Your task to perform on an android device: Open battery settings Image 0: 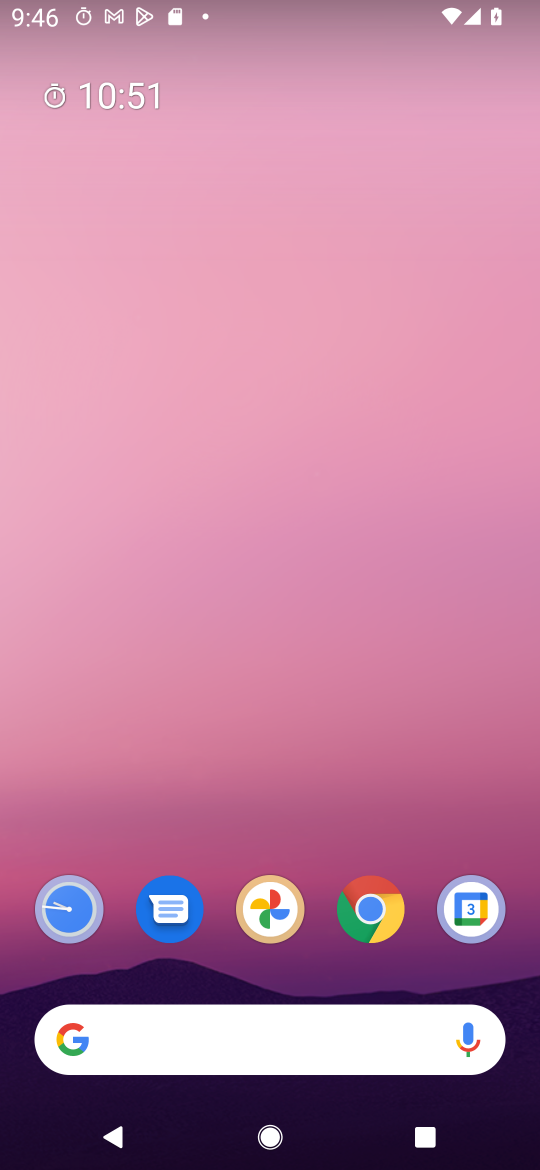
Step 0: press home button
Your task to perform on an android device: Open battery settings Image 1: 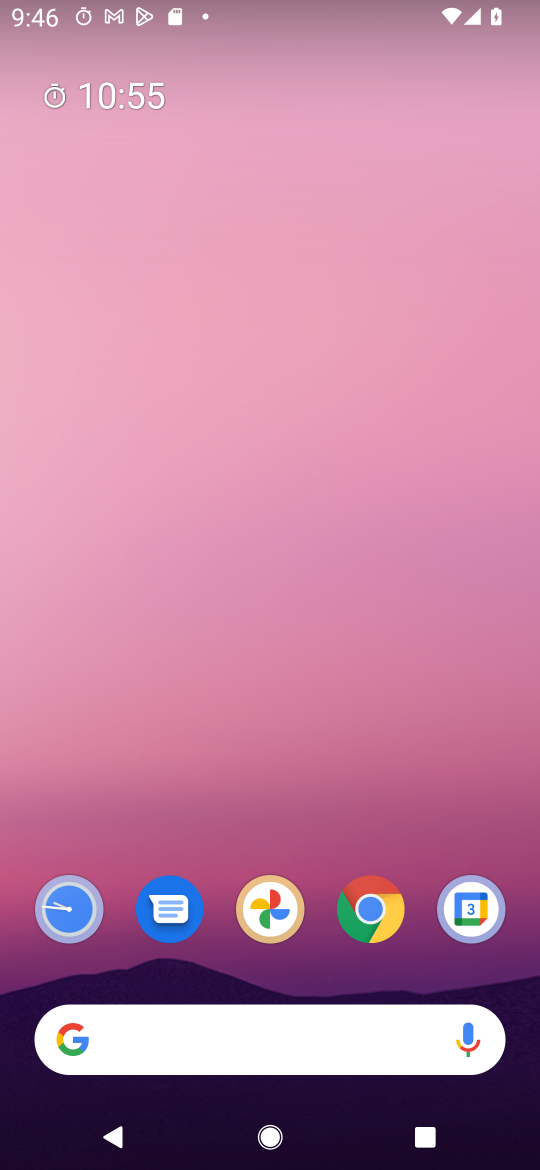
Step 1: drag from (434, 818) to (394, 218)
Your task to perform on an android device: Open battery settings Image 2: 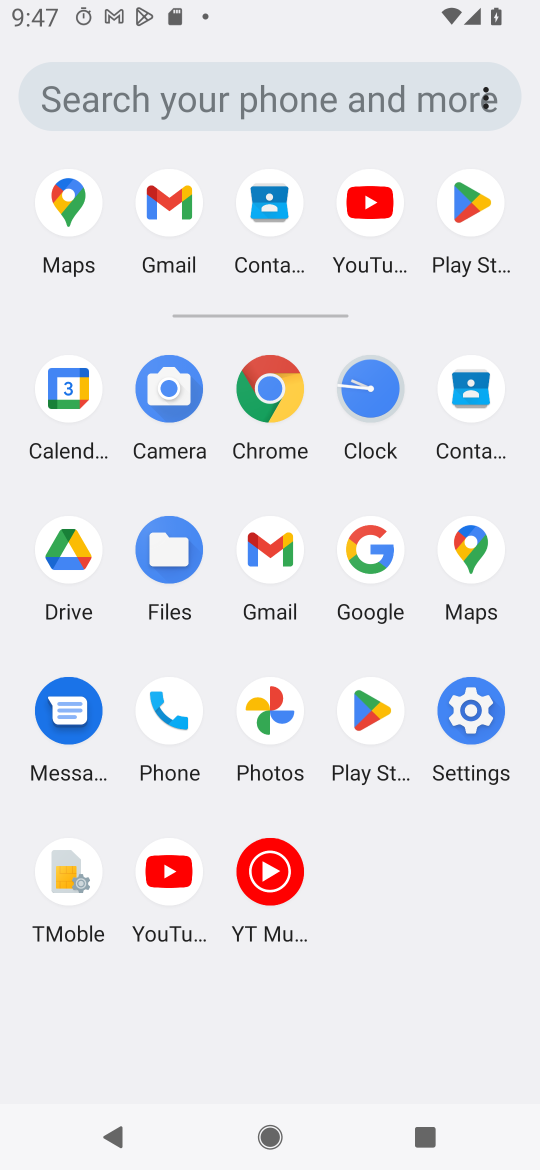
Step 2: click (474, 711)
Your task to perform on an android device: Open battery settings Image 3: 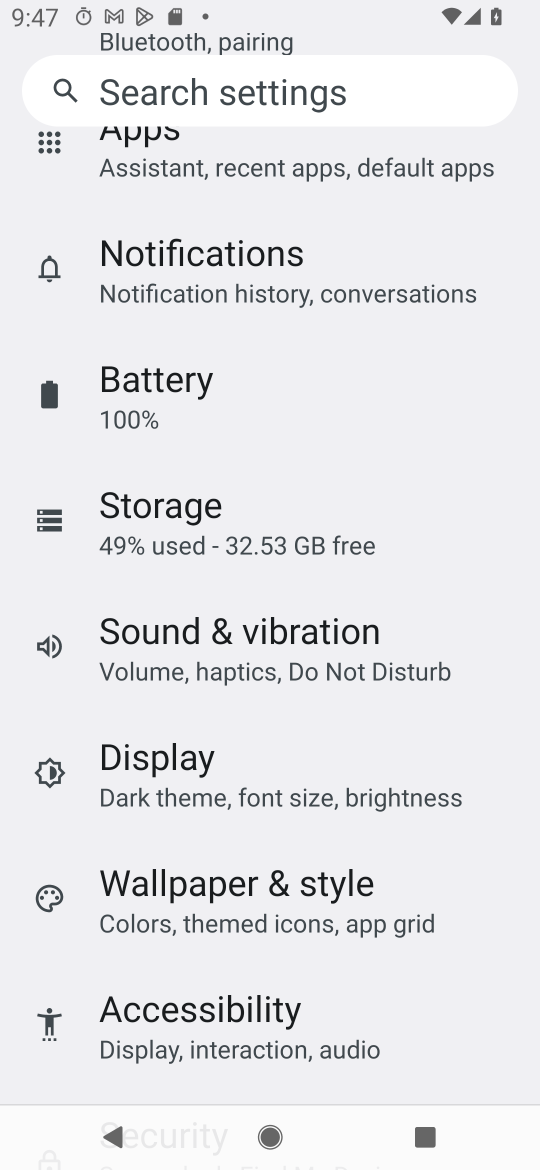
Step 3: drag from (480, 890) to (486, 686)
Your task to perform on an android device: Open battery settings Image 4: 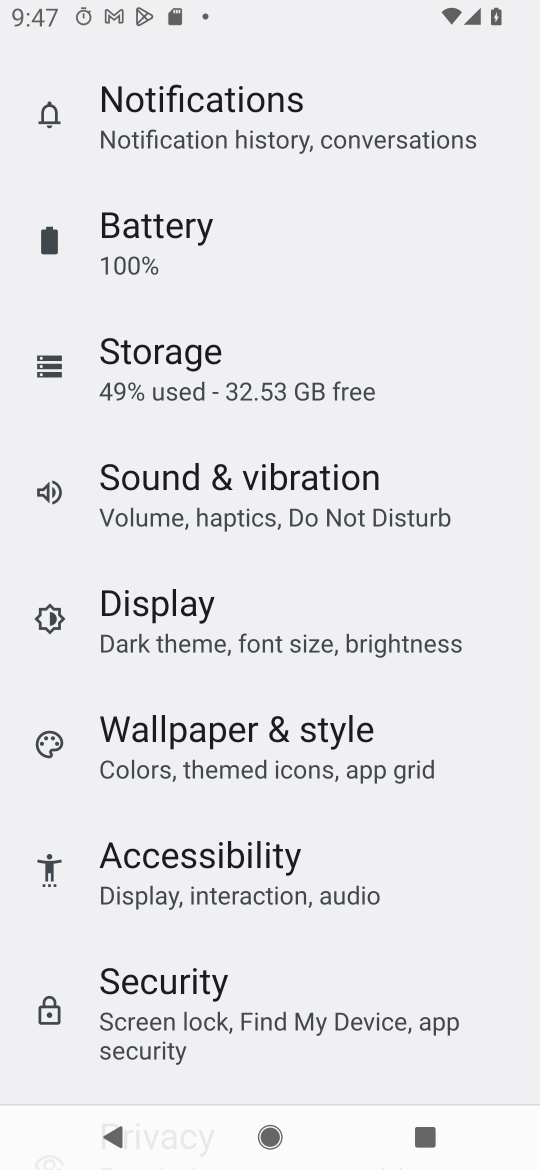
Step 4: drag from (484, 947) to (499, 719)
Your task to perform on an android device: Open battery settings Image 5: 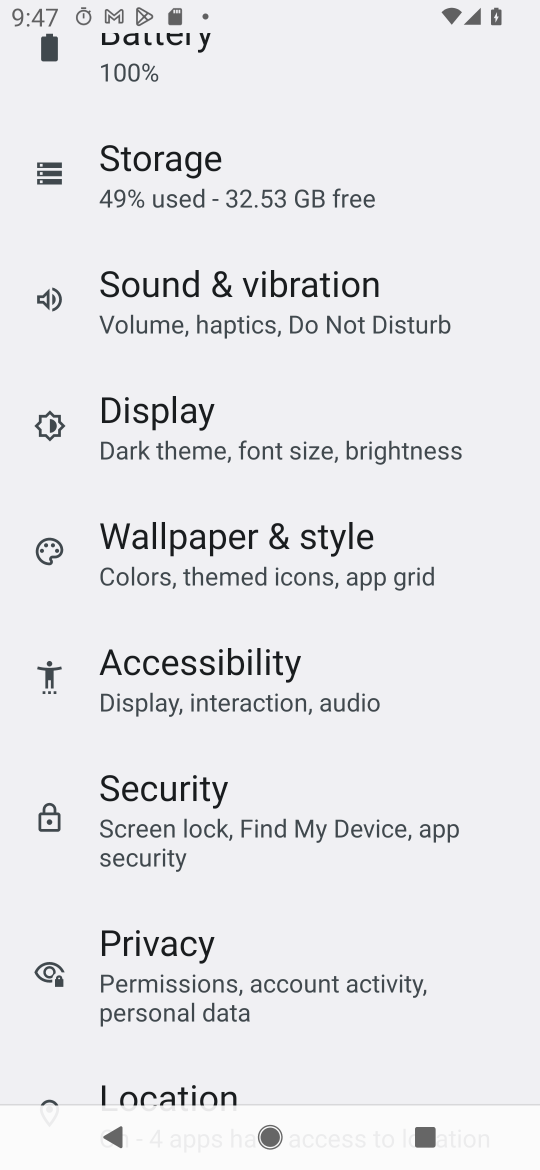
Step 5: drag from (482, 1019) to (482, 778)
Your task to perform on an android device: Open battery settings Image 6: 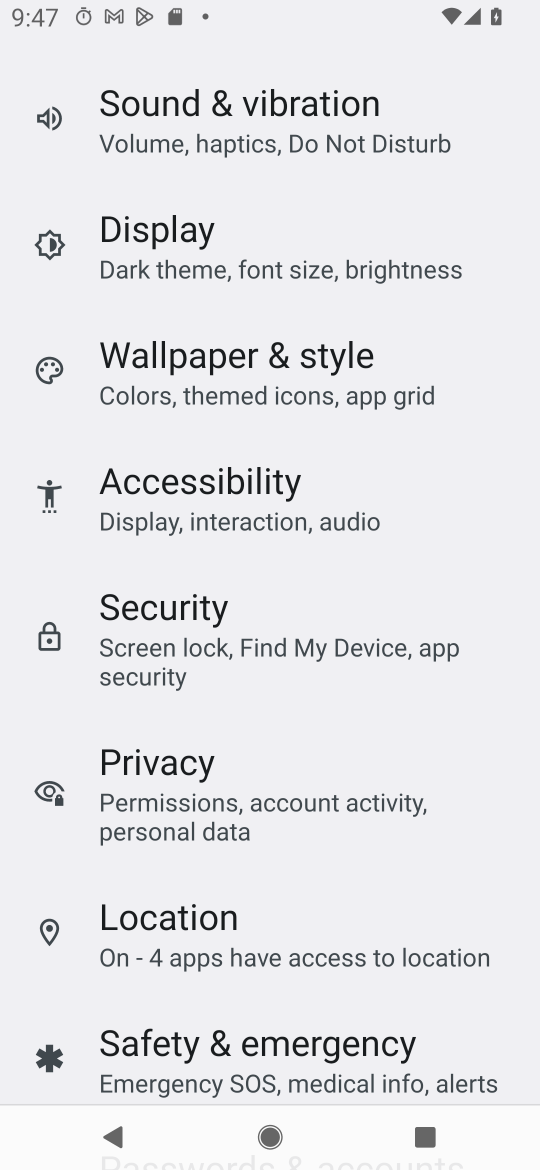
Step 6: drag from (487, 1017) to (487, 868)
Your task to perform on an android device: Open battery settings Image 7: 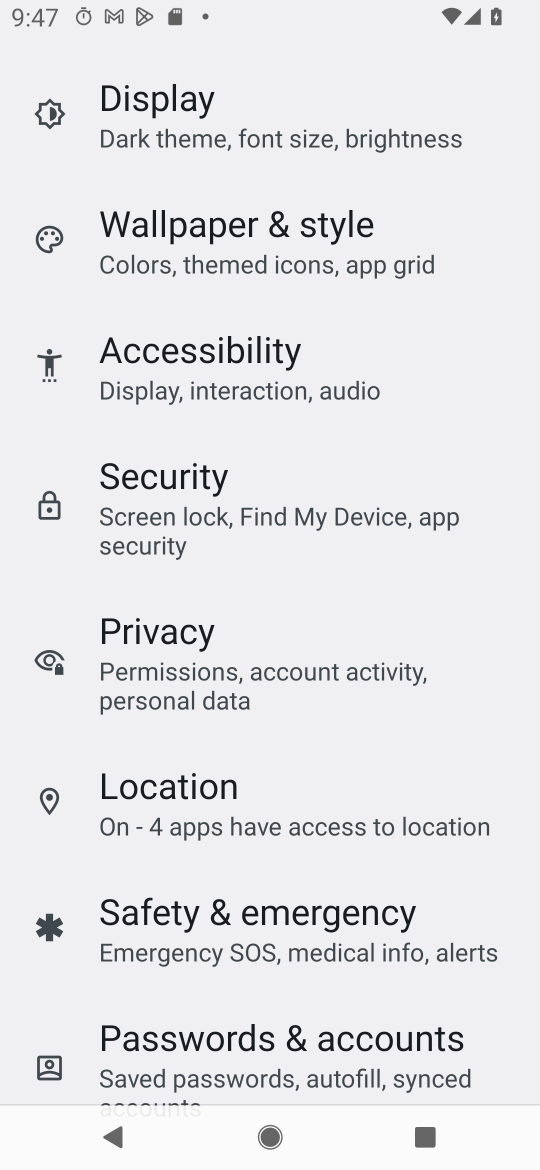
Step 7: drag from (501, 1032) to (475, 805)
Your task to perform on an android device: Open battery settings Image 8: 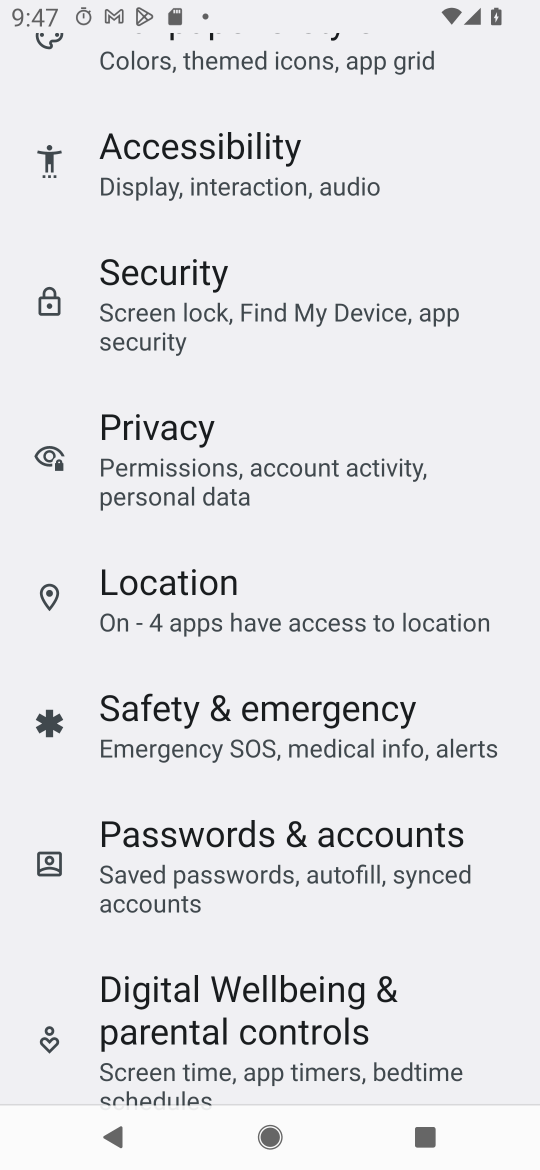
Step 8: drag from (483, 514) to (484, 684)
Your task to perform on an android device: Open battery settings Image 9: 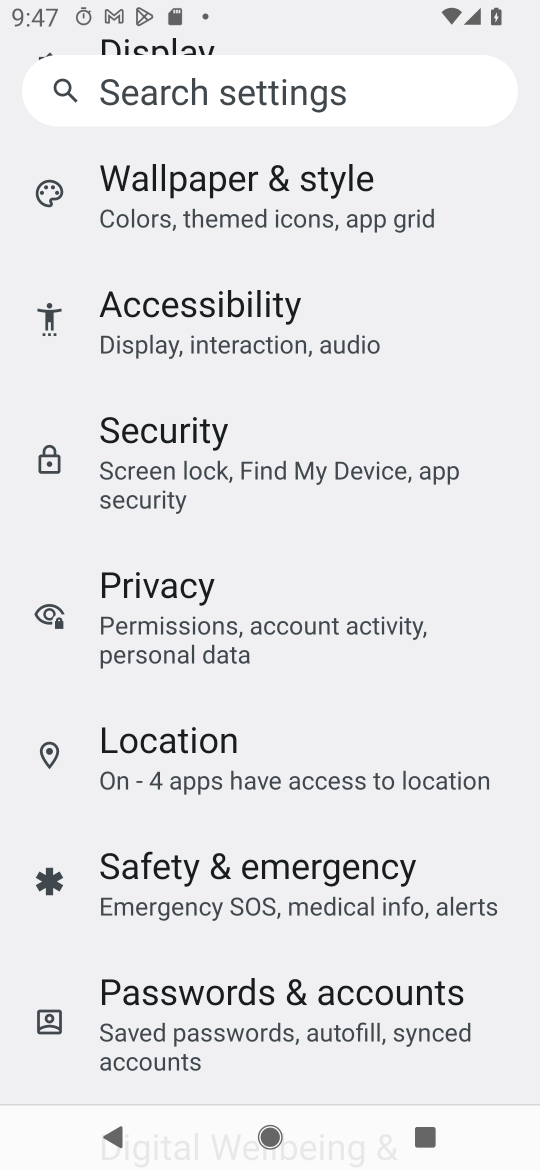
Step 9: drag from (483, 504) to (500, 714)
Your task to perform on an android device: Open battery settings Image 10: 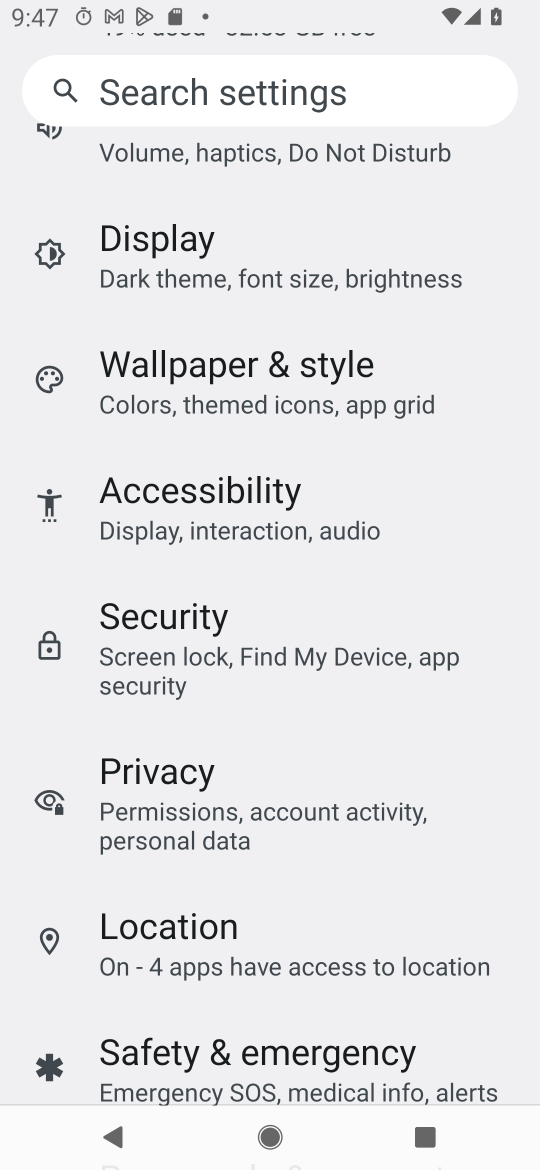
Step 10: drag from (482, 476) to (495, 727)
Your task to perform on an android device: Open battery settings Image 11: 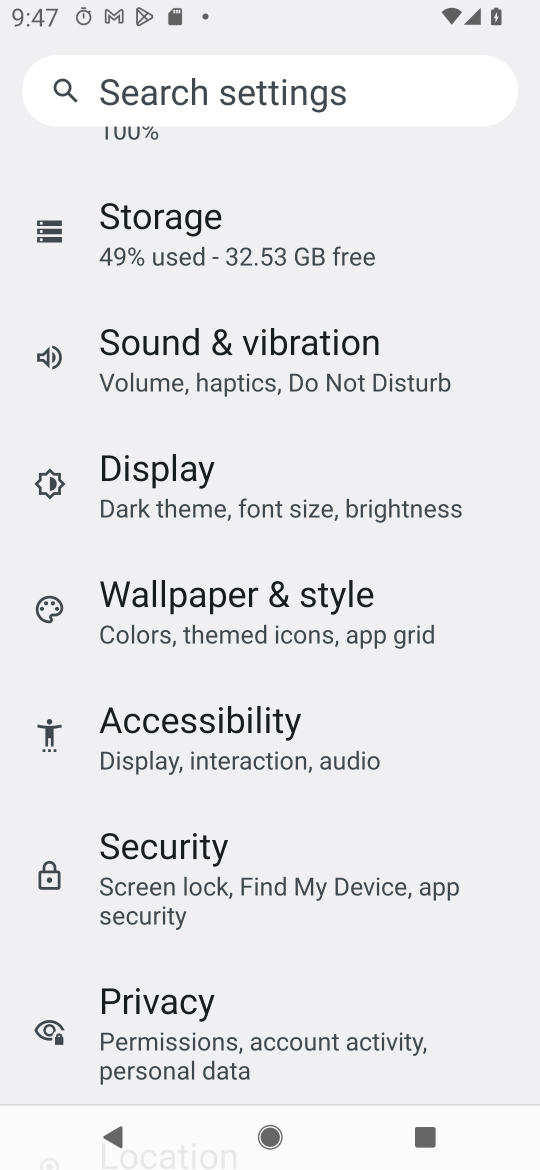
Step 11: drag from (474, 526) to (472, 756)
Your task to perform on an android device: Open battery settings Image 12: 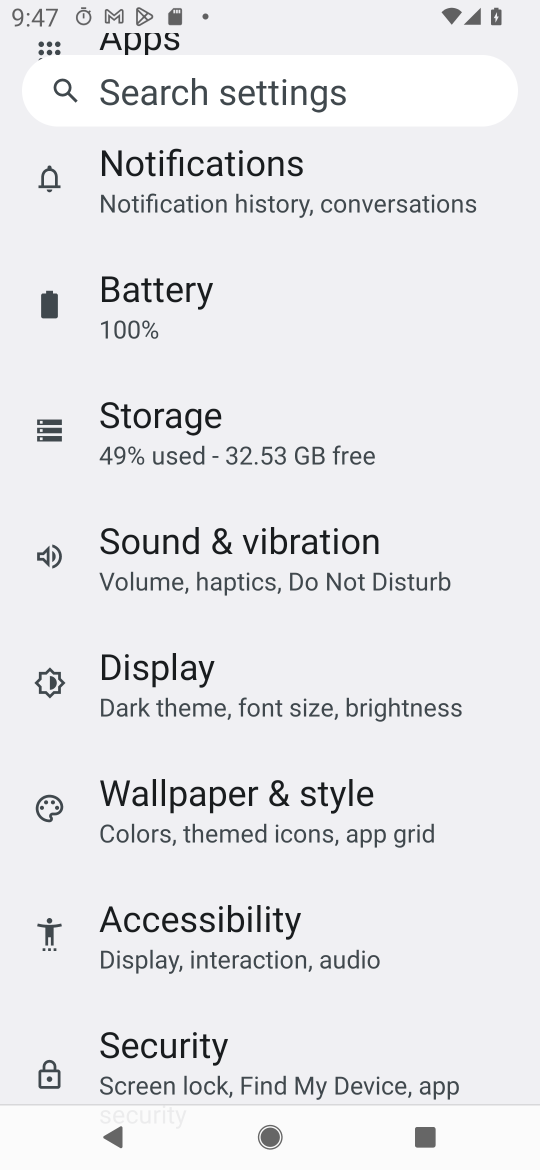
Step 12: drag from (480, 452) to (481, 712)
Your task to perform on an android device: Open battery settings Image 13: 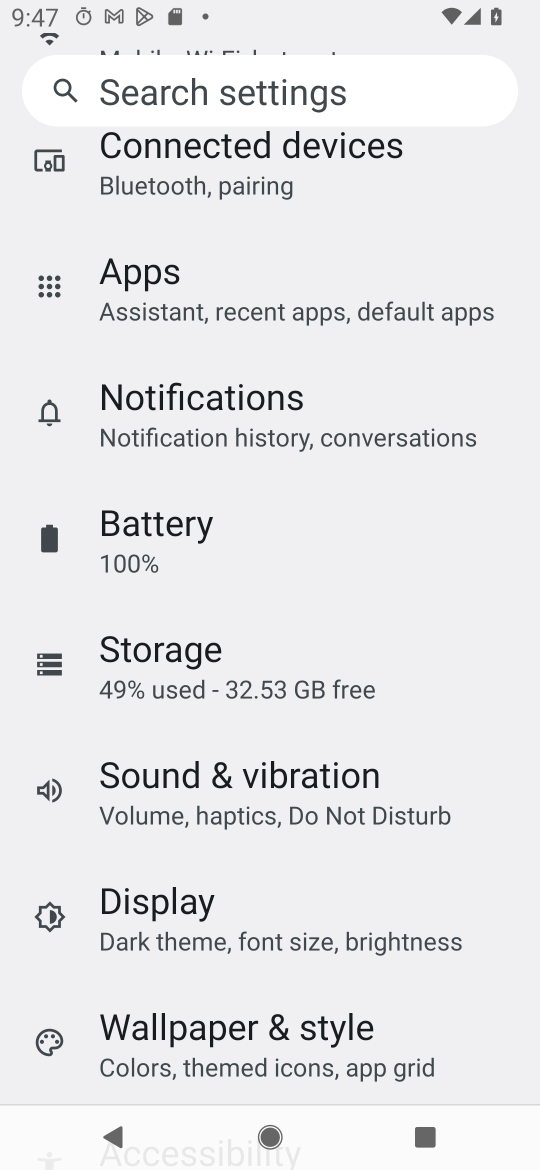
Step 13: click (257, 529)
Your task to perform on an android device: Open battery settings Image 14: 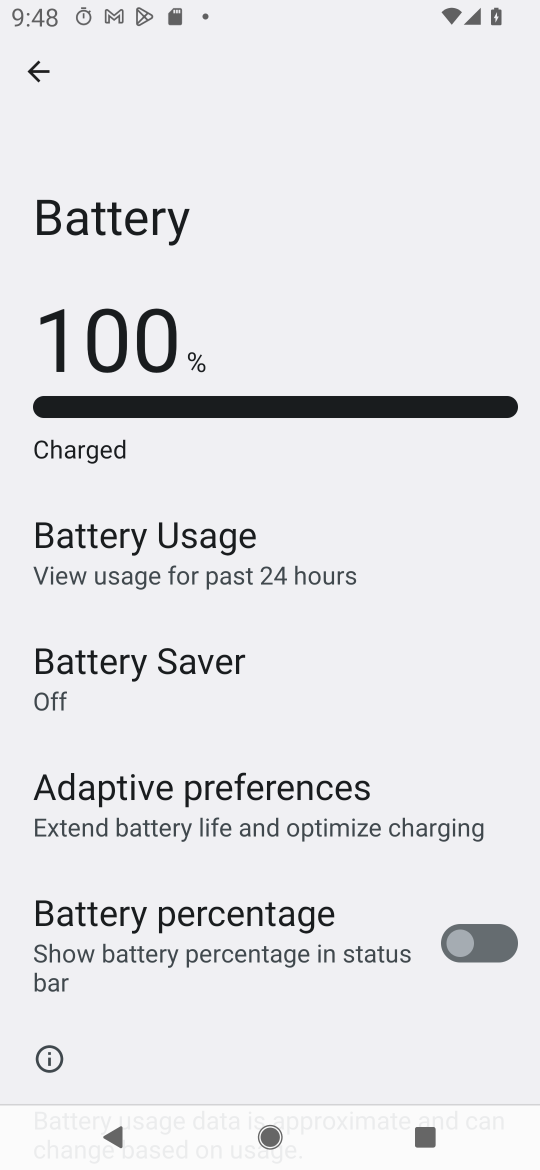
Step 14: task complete